Your task to perform on an android device: open app "Messages" Image 0: 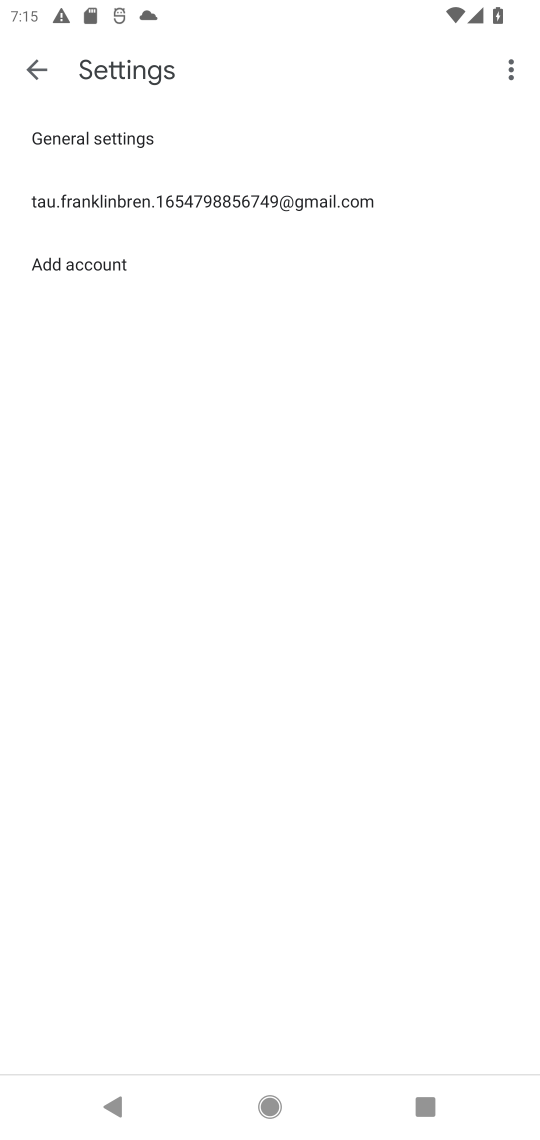
Step 0: press home button
Your task to perform on an android device: open app "Messages" Image 1: 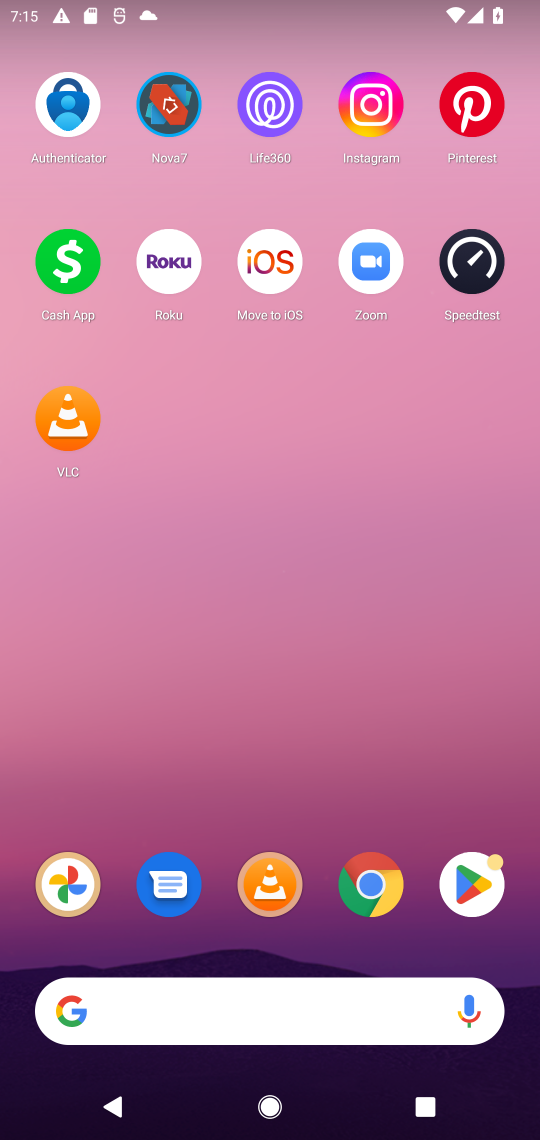
Step 1: click (471, 881)
Your task to perform on an android device: open app "Messages" Image 2: 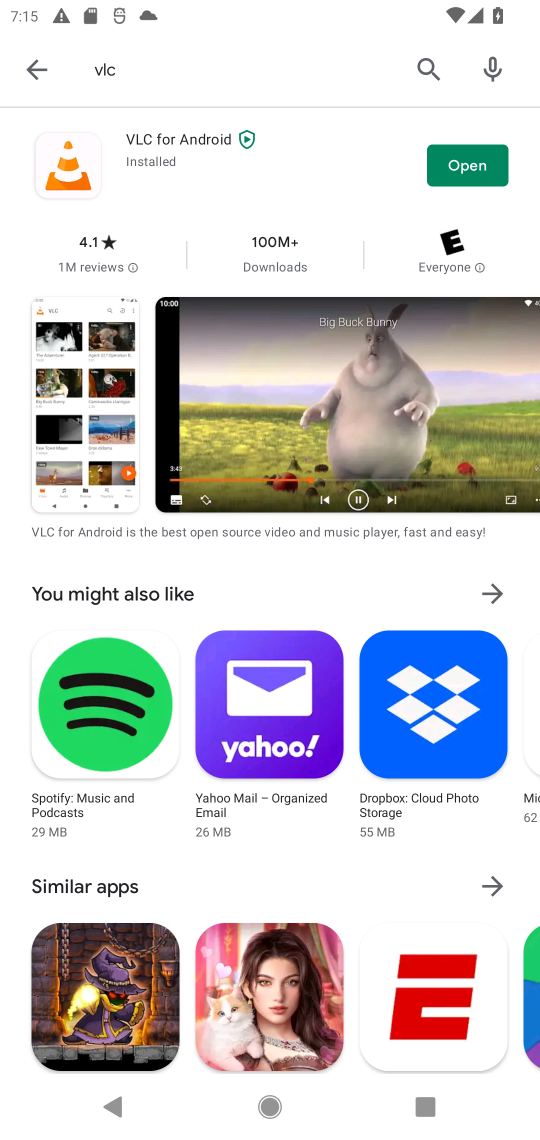
Step 2: click (422, 73)
Your task to perform on an android device: open app "Messages" Image 3: 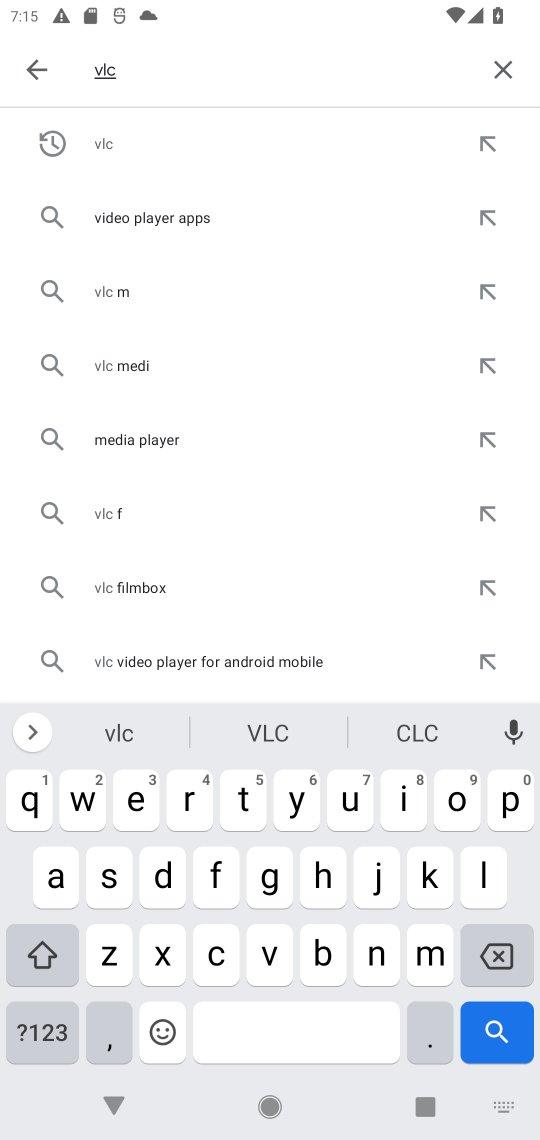
Step 3: click (500, 72)
Your task to perform on an android device: open app "Messages" Image 4: 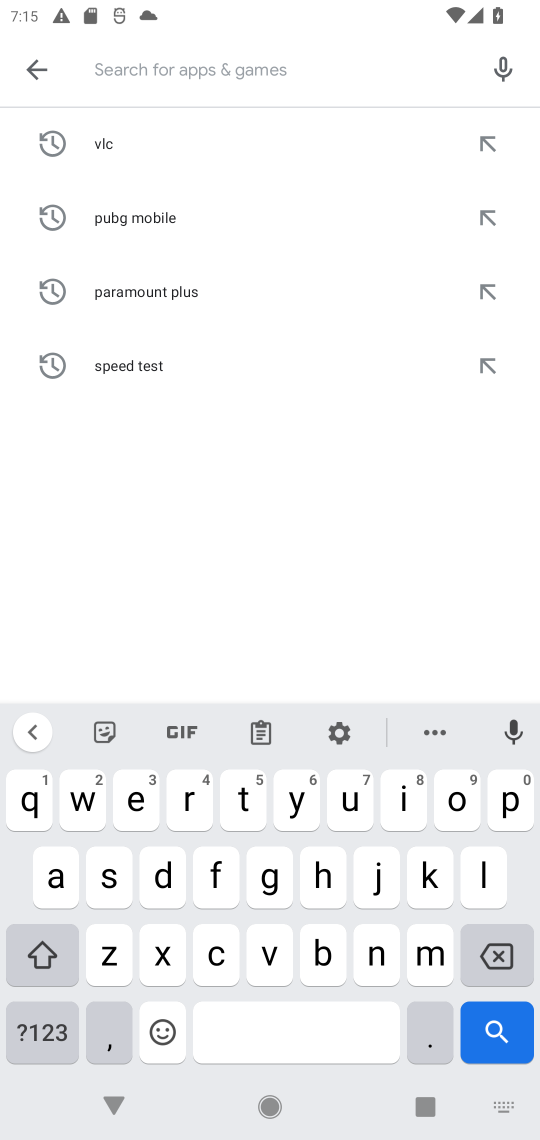
Step 4: click (428, 943)
Your task to perform on an android device: open app "Messages" Image 5: 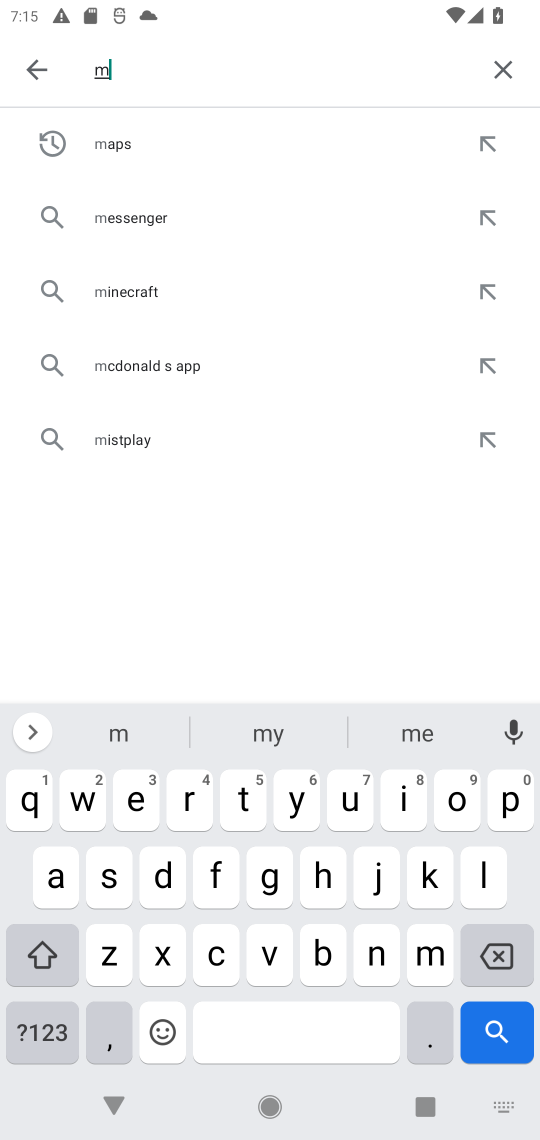
Step 5: click (134, 796)
Your task to perform on an android device: open app "Messages" Image 6: 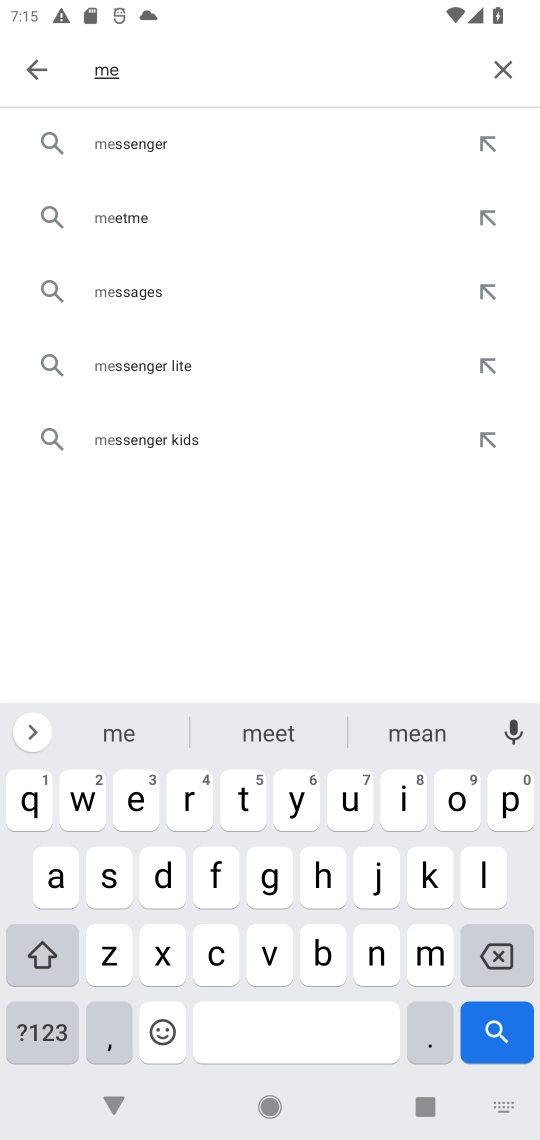
Step 6: click (143, 299)
Your task to perform on an android device: open app "Messages" Image 7: 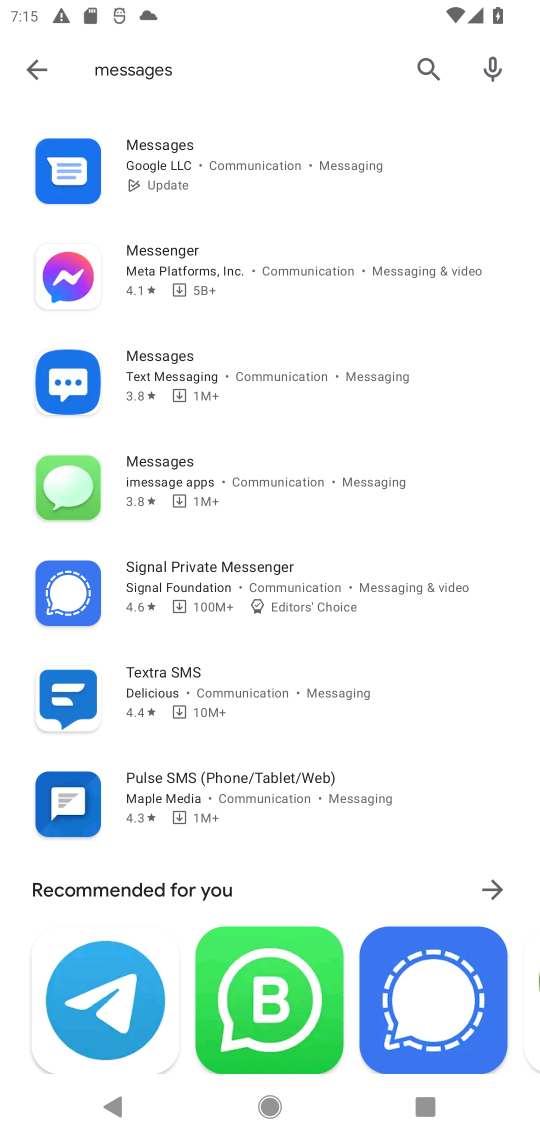
Step 7: click (202, 175)
Your task to perform on an android device: open app "Messages" Image 8: 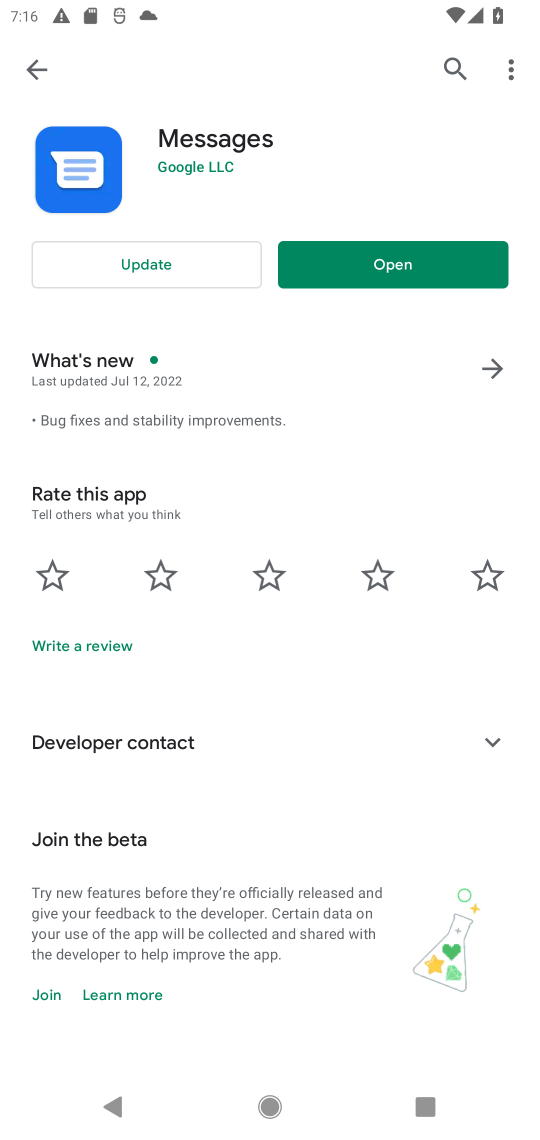
Step 8: click (347, 260)
Your task to perform on an android device: open app "Messages" Image 9: 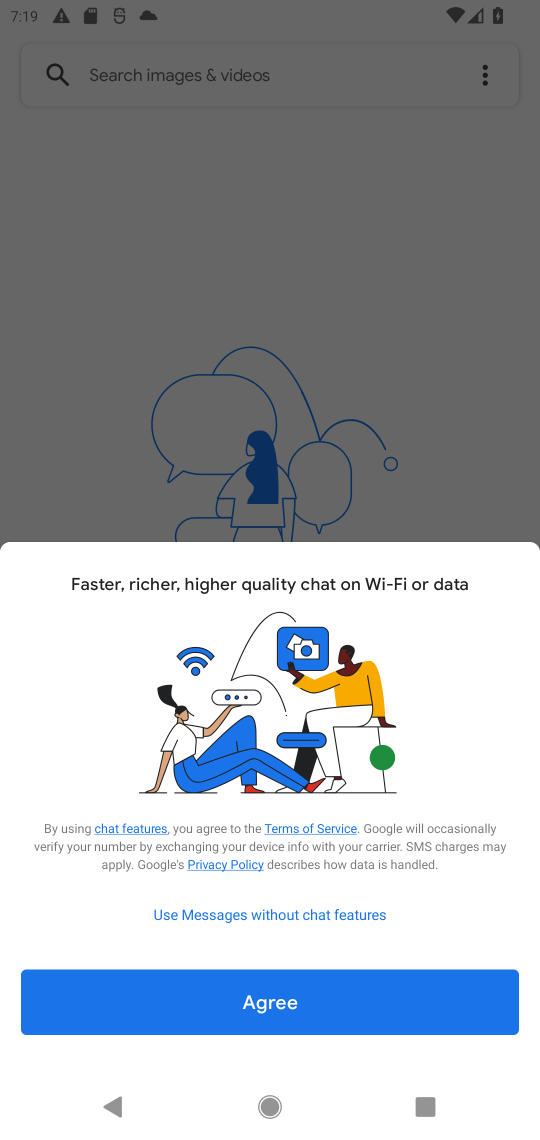
Step 9: task complete